Your task to perform on an android device: check battery use Image 0: 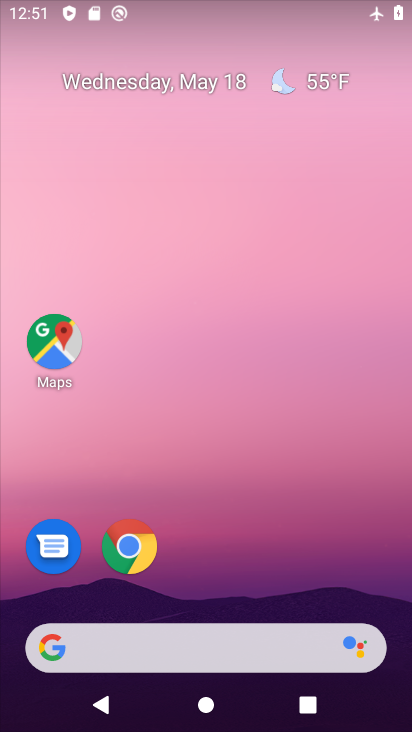
Step 0: drag from (363, 579) to (364, 118)
Your task to perform on an android device: check battery use Image 1: 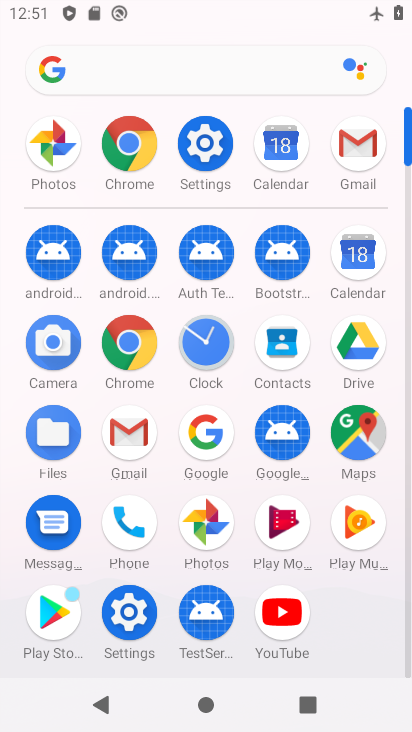
Step 1: click (210, 132)
Your task to perform on an android device: check battery use Image 2: 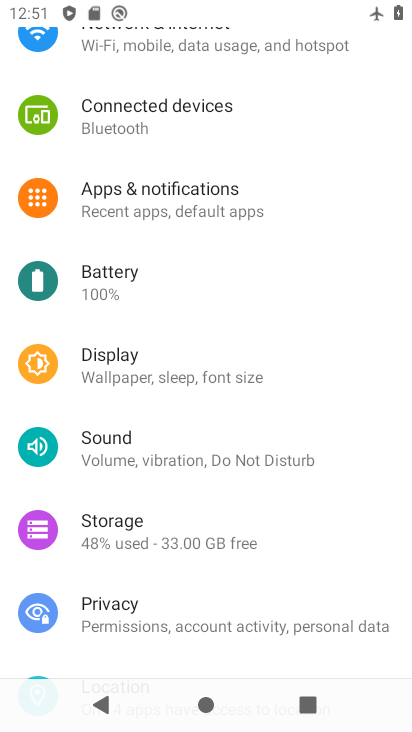
Step 2: click (153, 285)
Your task to perform on an android device: check battery use Image 3: 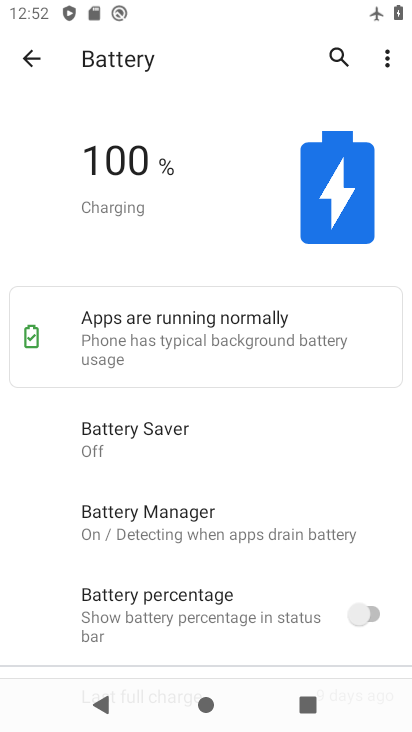
Step 3: task complete